Your task to perform on an android device: change the clock display to show seconds Image 0: 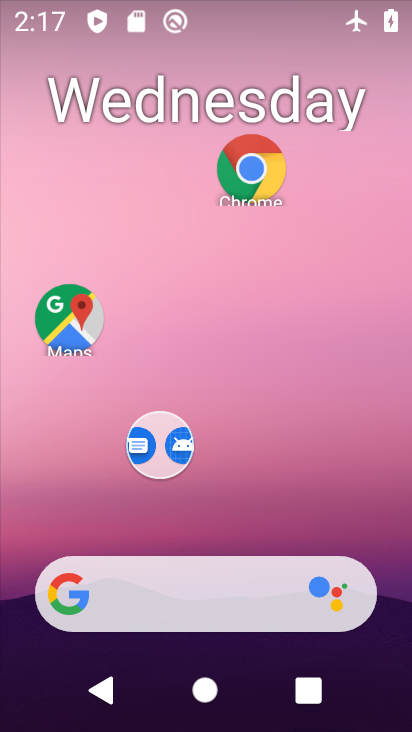
Step 0: drag from (235, 496) to (287, 182)
Your task to perform on an android device: change the clock display to show seconds Image 1: 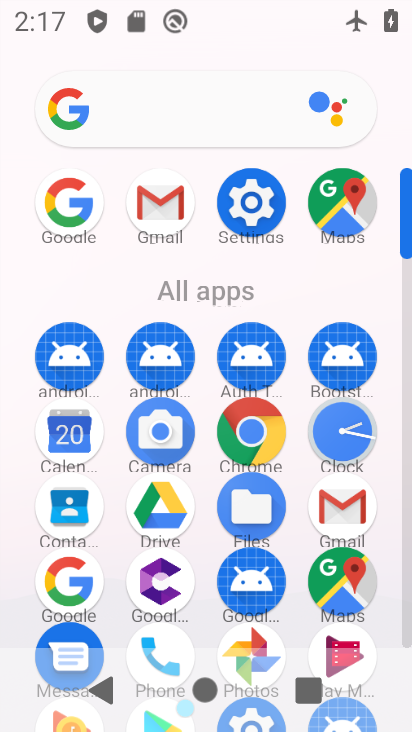
Step 1: click (345, 435)
Your task to perform on an android device: change the clock display to show seconds Image 2: 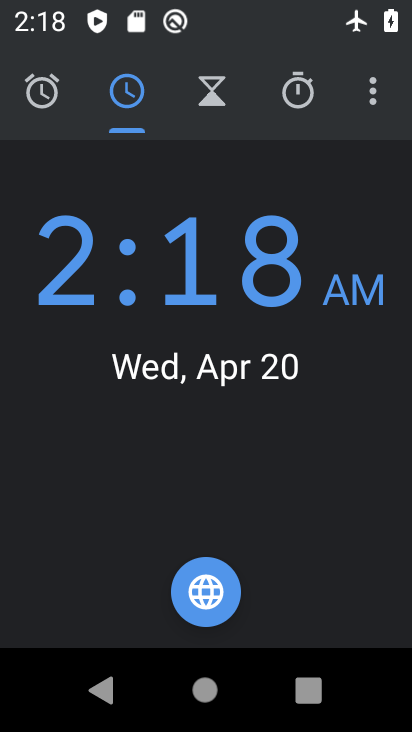
Step 2: click (368, 97)
Your task to perform on an android device: change the clock display to show seconds Image 3: 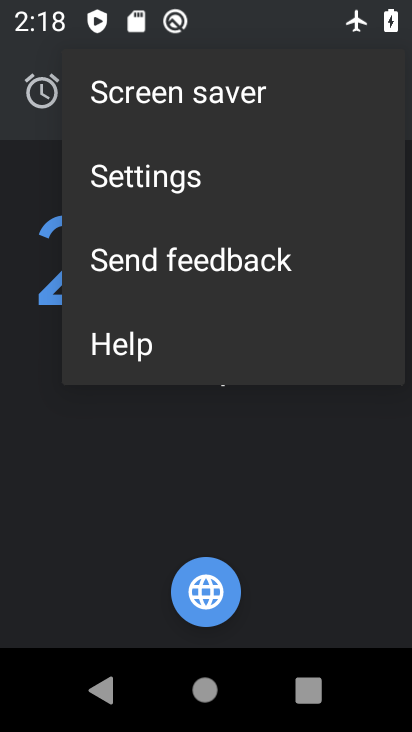
Step 3: click (136, 192)
Your task to perform on an android device: change the clock display to show seconds Image 4: 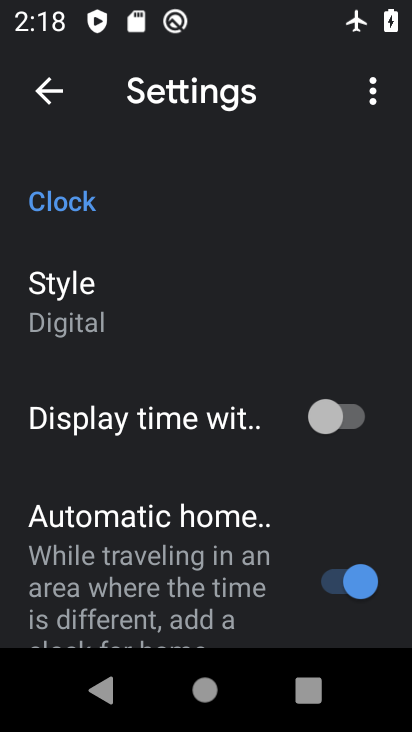
Step 4: click (259, 428)
Your task to perform on an android device: change the clock display to show seconds Image 5: 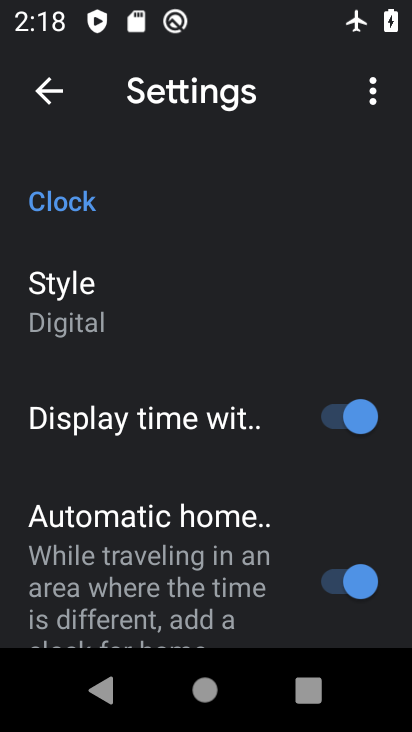
Step 5: task complete